Your task to perform on an android device: turn pop-ups off in chrome Image 0: 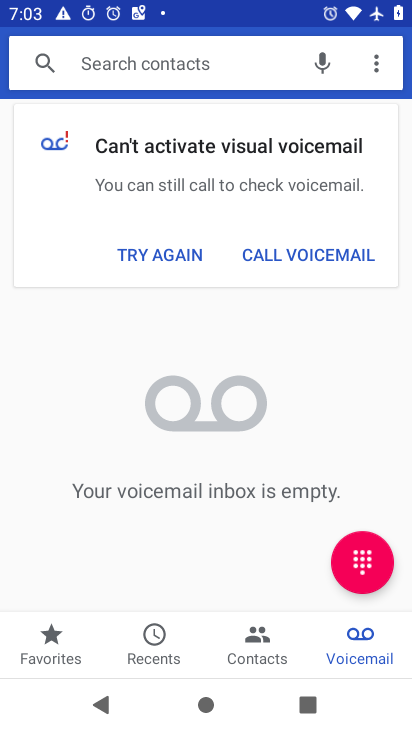
Step 0: press home button
Your task to perform on an android device: turn pop-ups off in chrome Image 1: 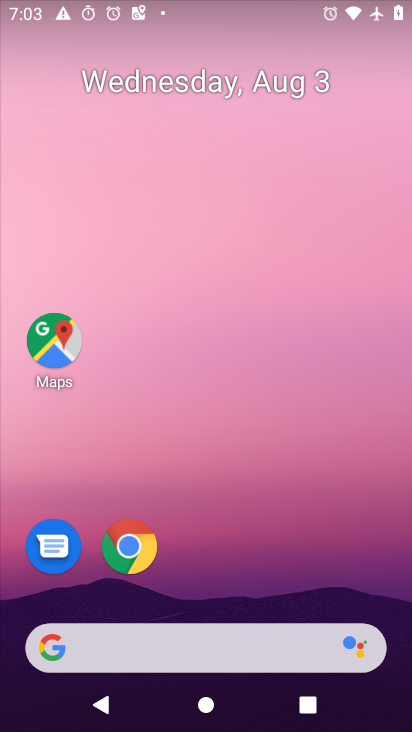
Step 1: drag from (237, 611) to (221, 144)
Your task to perform on an android device: turn pop-ups off in chrome Image 2: 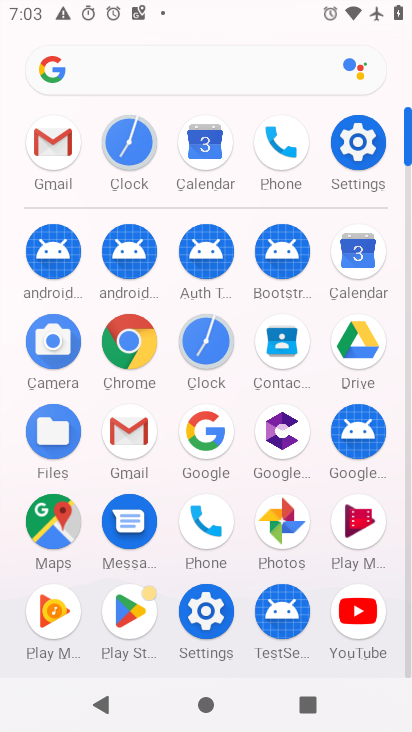
Step 2: click (133, 344)
Your task to perform on an android device: turn pop-ups off in chrome Image 3: 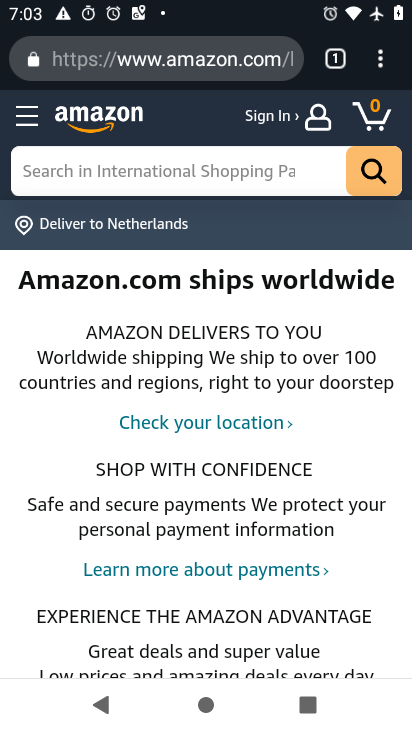
Step 3: drag from (381, 59) to (207, 577)
Your task to perform on an android device: turn pop-ups off in chrome Image 4: 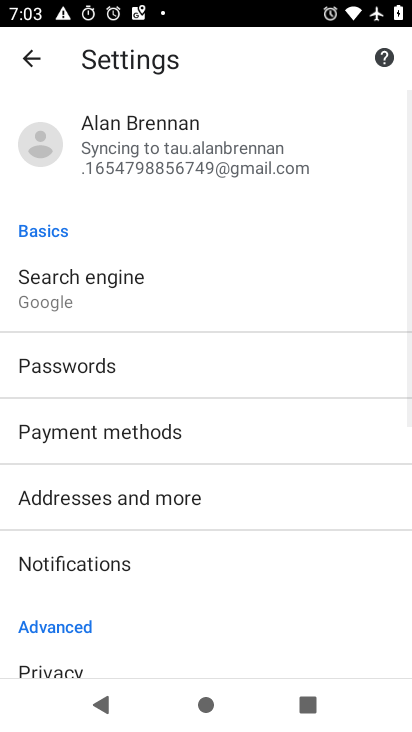
Step 4: drag from (260, 616) to (243, 63)
Your task to perform on an android device: turn pop-ups off in chrome Image 5: 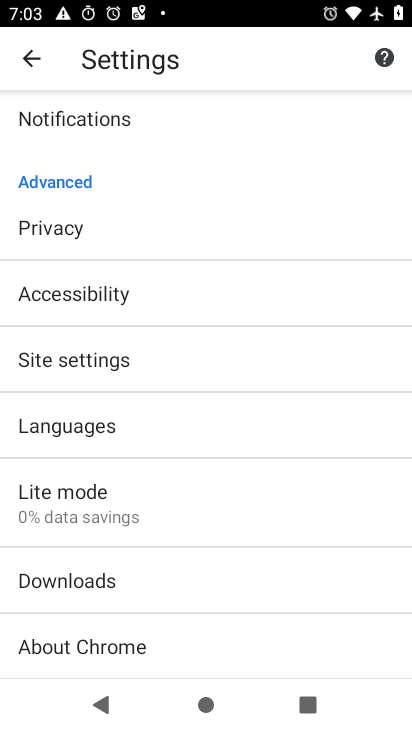
Step 5: drag from (287, 645) to (265, 204)
Your task to perform on an android device: turn pop-ups off in chrome Image 6: 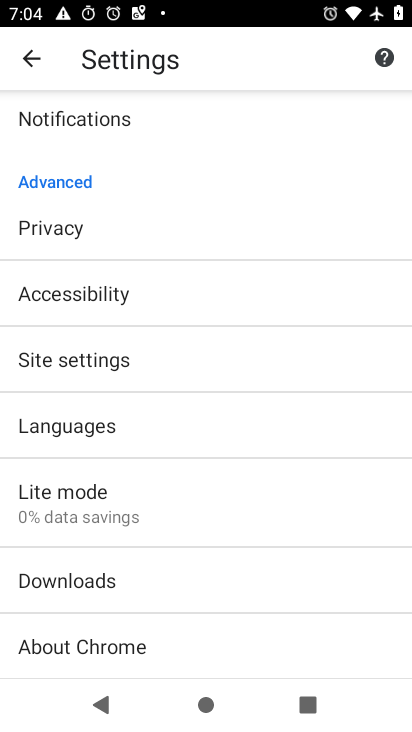
Step 6: click (78, 353)
Your task to perform on an android device: turn pop-ups off in chrome Image 7: 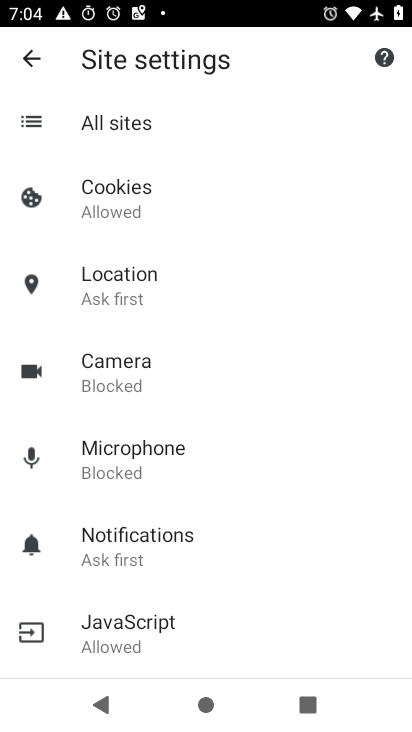
Step 7: drag from (286, 604) to (258, 87)
Your task to perform on an android device: turn pop-ups off in chrome Image 8: 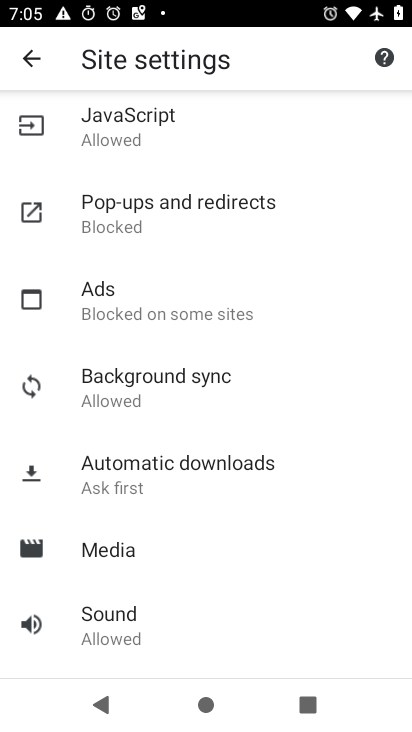
Step 8: drag from (315, 254) to (259, 512)
Your task to perform on an android device: turn pop-ups off in chrome Image 9: 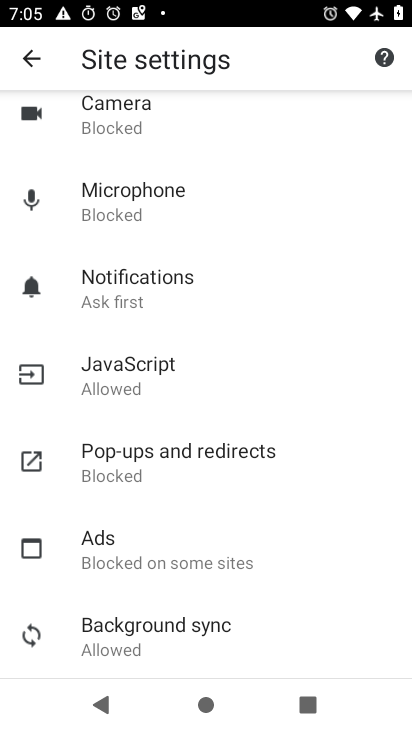
Step 9: click (126, 459)
Your task to perform on an android device: turn pop-ups off in chrome Image 10: 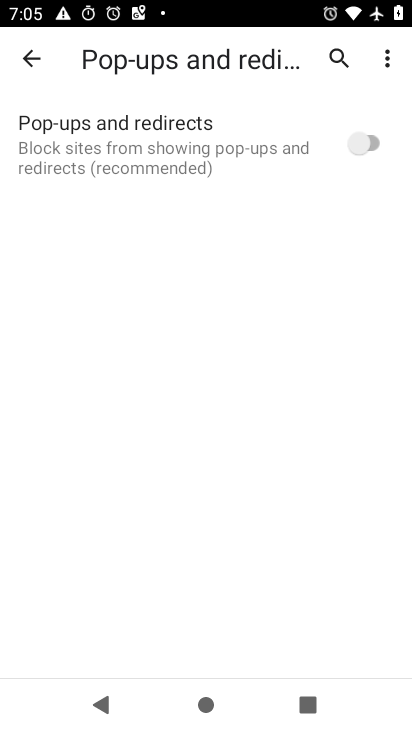
Step 10: task complete